Your task to perform on an android device: Go to ESPN.com Image 0: 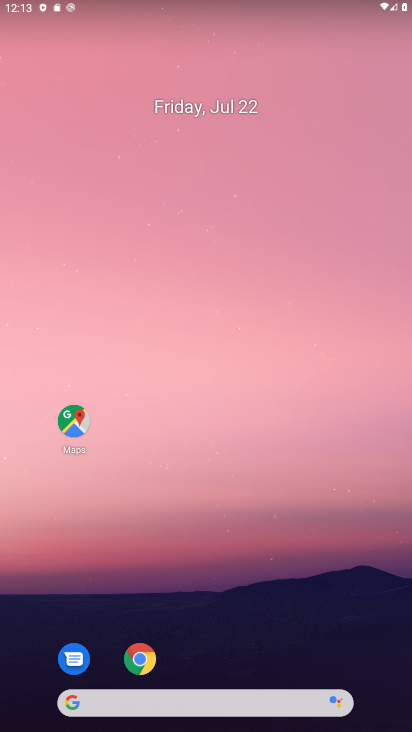
Step 0: click (203, 690)
Your task to perform on an android device: Go to ESPN.com Image 1: 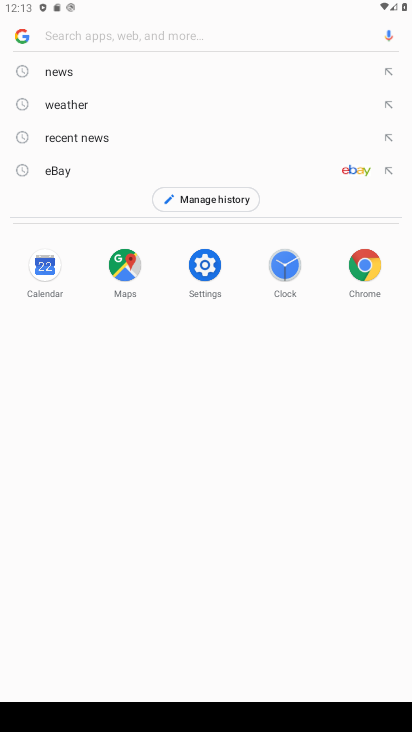
Step 1: type "espn.com"
Your task to perform on an android device: Go to ESPN.com Image 2: 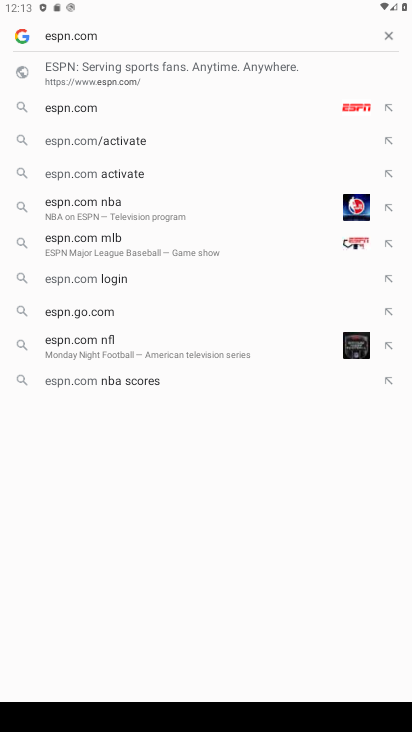
Step 2: click (178, 69)
Your task to perform on an android device: Go to ESPN.com Image 3: 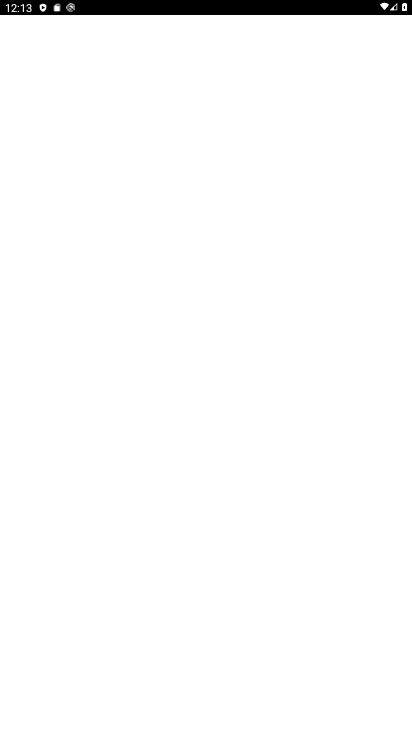
Step 3: task complete